Your task to perform on an android device: turn off improve location accuracy Image 0: 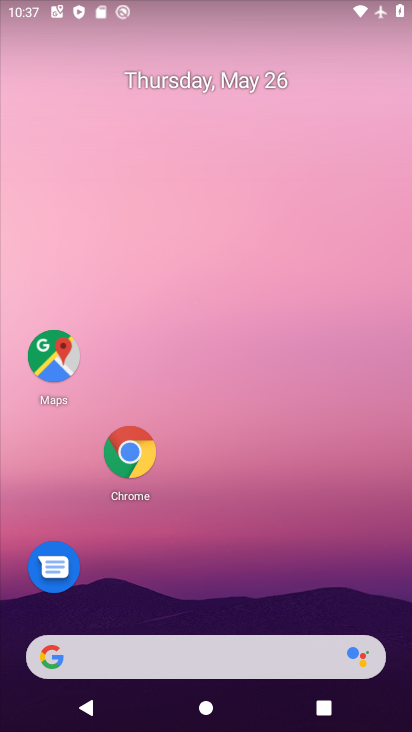
Step 0: drag from (150, 661) to (335, 93)
Your task to perform on an android device: turn off improve location accuracy Image 1: 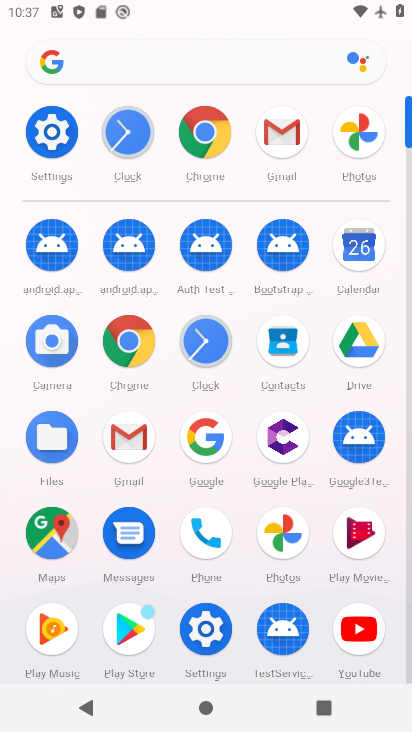
Step 1: click (54, 136)
Your task to perform on an android device: turn off improve location accuracy Image 2: 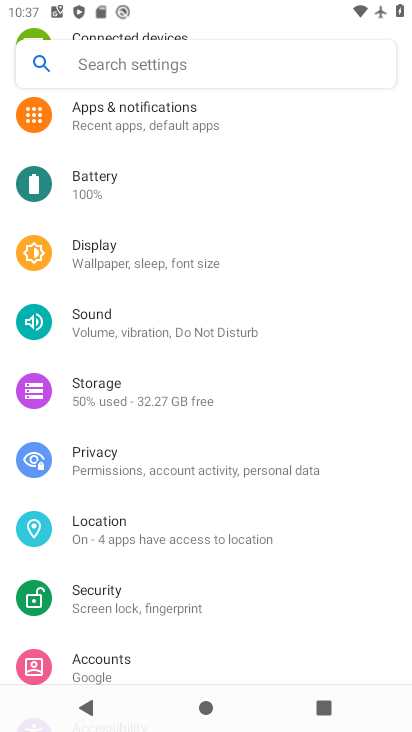
Step 2: click (120, 523)
Your task to perform on an android device: turn off improve location accuracy Image 3: 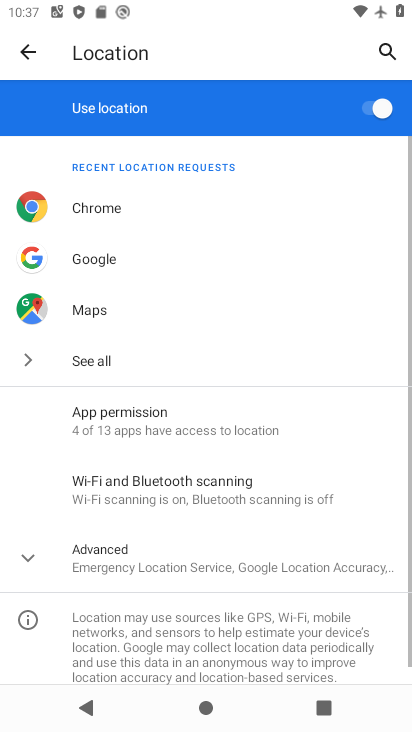
Step 3: click (137, 568)
Your task to perform on an android device: turn off improve location accuracy Image 4: 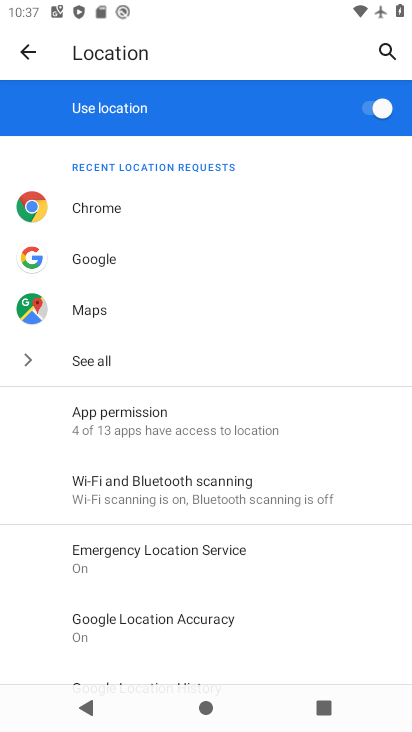
Step 4: drag from (220, 554) to (295, 329)
Your task to perform on an android device: turn off improve location accuracy Image 5: 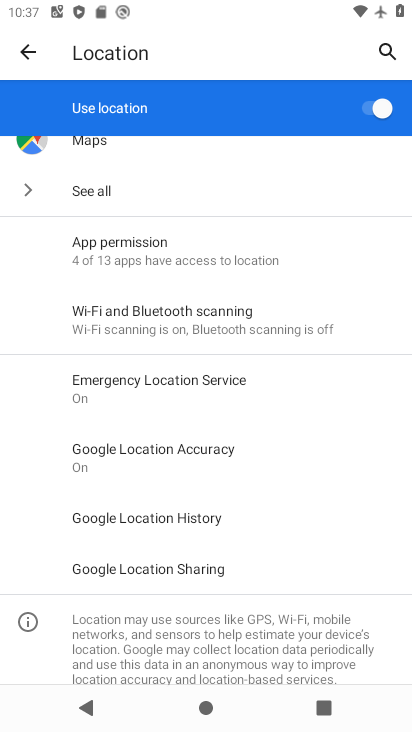
Step 5: click (181, 455)
Your task to perform on an android device: turn off improve location accuracy Image 6: 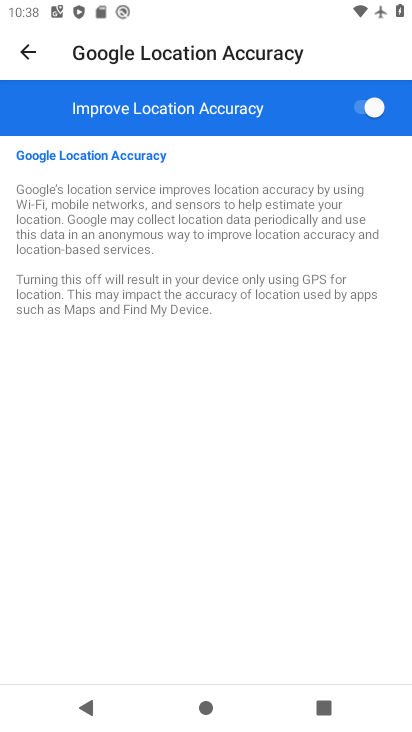
Step 6: click (361, 110)
Your task to perform on an android device: turn off improve location accuracy Image 7: 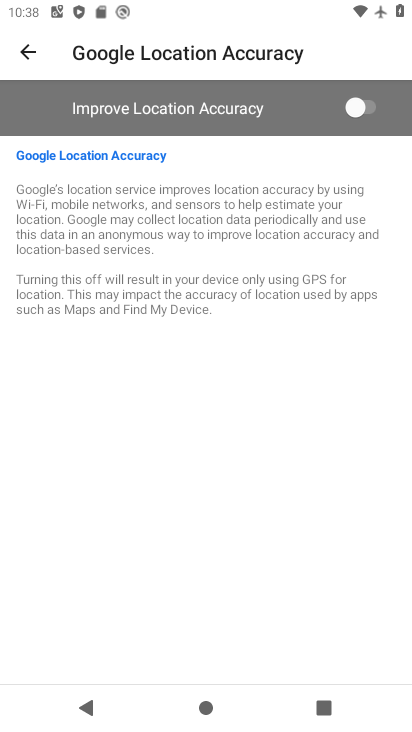
Step 7: task complete